Your task to perform on an android device: Search for pizza restaurants on Maps Image 0: 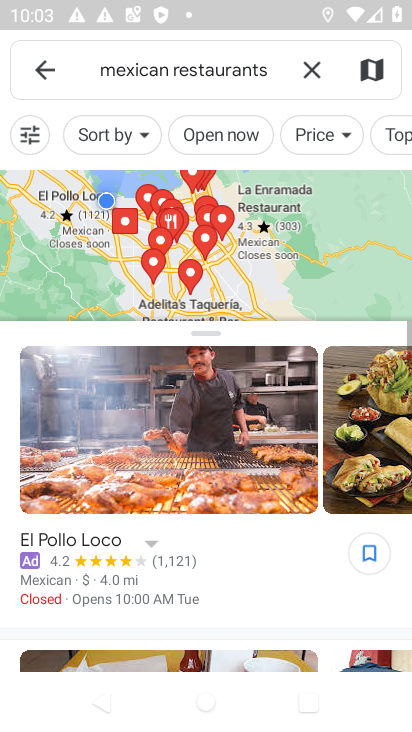
Step 0: press home button
Your task to perform on an android device: Search for pizza restaurants on Maps Image 1: 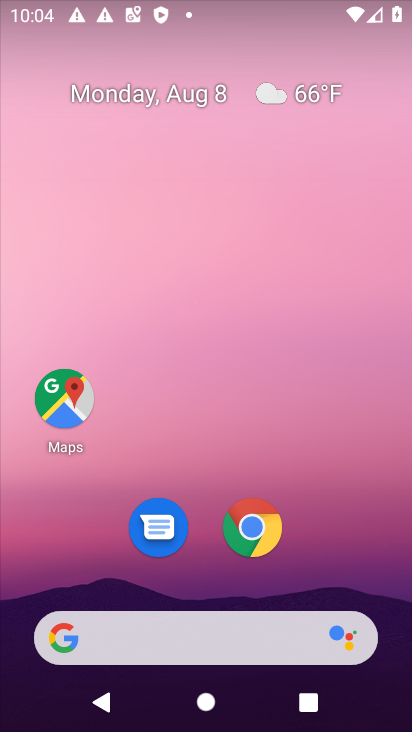
Step 1: click (54, 398)
Your task to perform on an android device: Search for pizza restaurants on Maps Image 2: 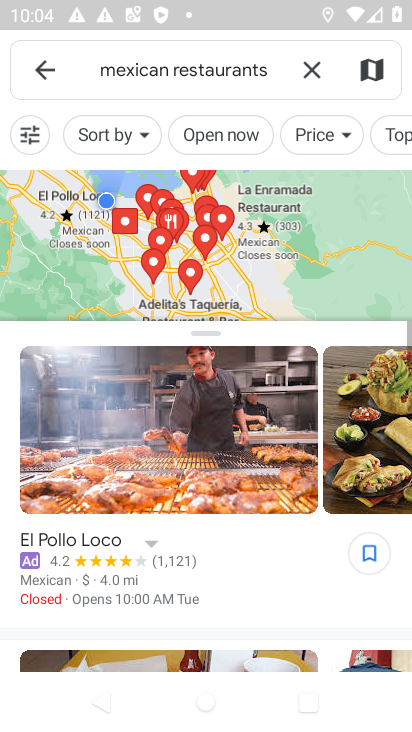
Step 2: click (298, 71)
Your task to perform on an android device: Search for pizza restaurants on Maps Image 3: 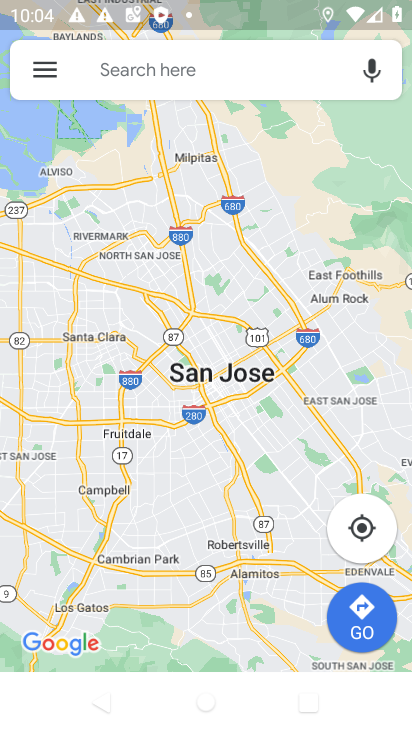
Step 3: click (142, 67)
Your task to perform on an android device: Search for pizza restaurants on Maps Image 4: 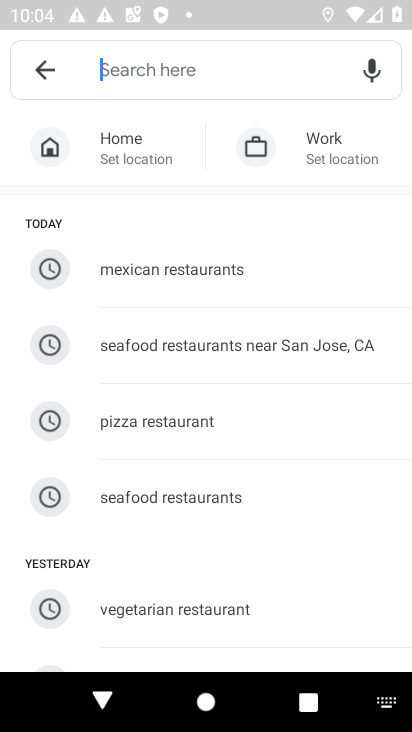
Step 4: type "pizza restaurants"
Your task to perform on an android device: Search for pizza restaurants on Maps Image 5: 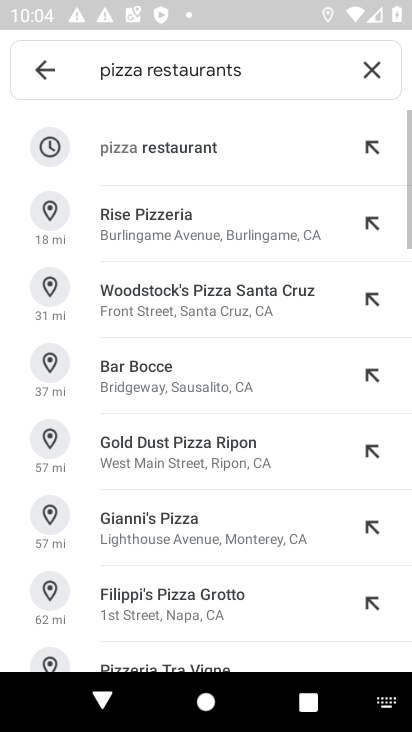
Step 5: click (206, 144)
Your task to perform on an android device: Search for pizza restaurants on Maps Image 6: 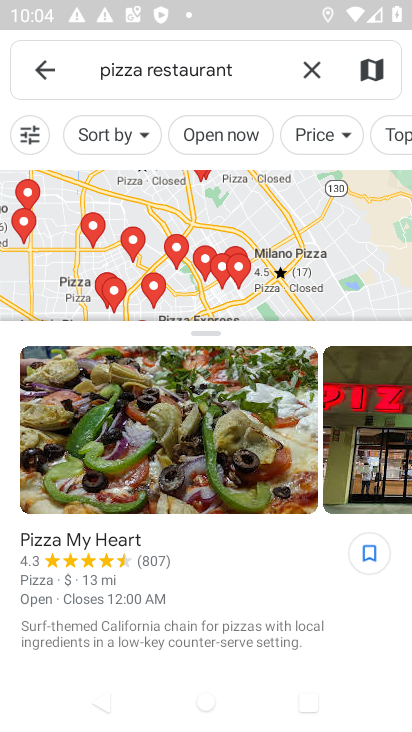
Step 6: task complete